Your task to perform on an android device: toggle airplane mode Image 0: 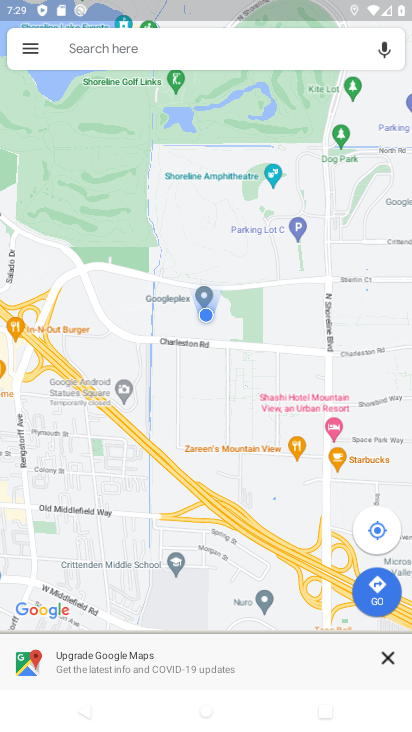
Step 0: drag from (365, 629) to (270, 127)
Your task to perform on an android device: toggle airplane mode Image 1: 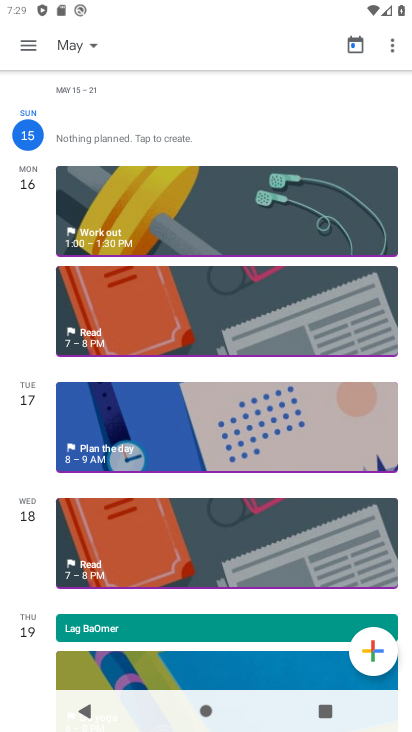
Step 1: press home button
Your task to perform on an android device: toggle airplane mode Image 2: 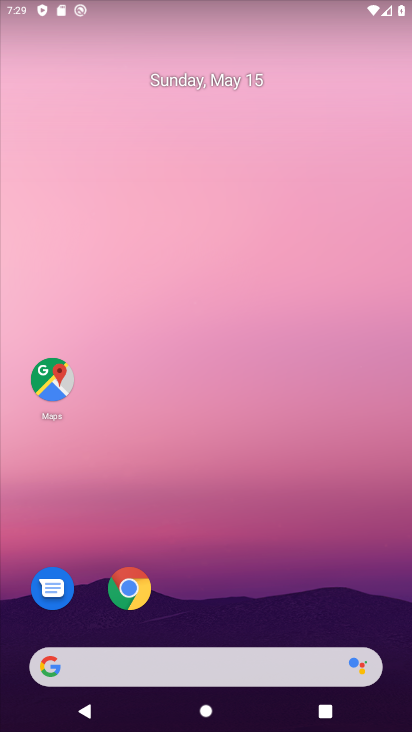
Step 2: drag from (286, 3) to (234, 495)
Your task to perform on an android device: toggle airplane mode Image 3: 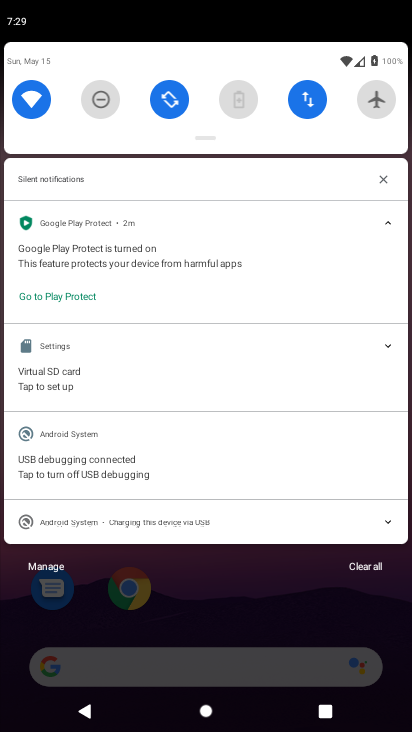
Step 3: click (376, 88)
Your task to perform on an android device: toggle airplane mode Image 4: 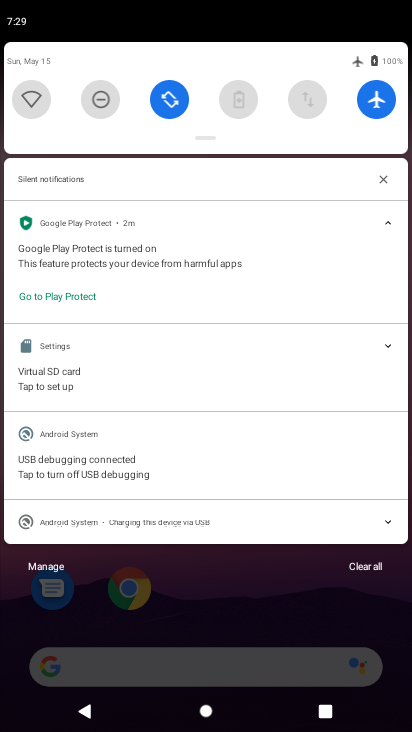
Step 4: task complete